Your task to perform on an android device: change the clock display to digital Image 0: 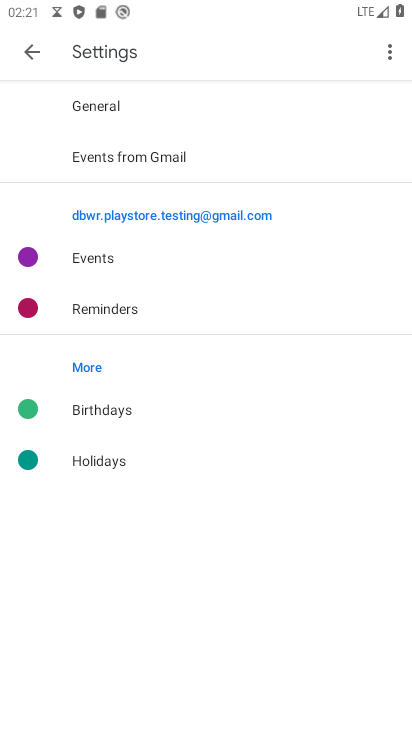
Step 0: press home button
Your task to perform on an android device: change the clock display to digital Image 1: 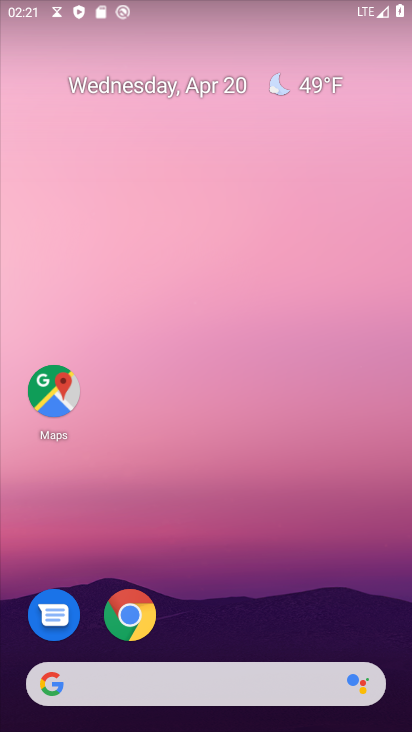
Step 1: click (273, 198)
Your task to perform on an android device: change the clock display to digital Image 2: 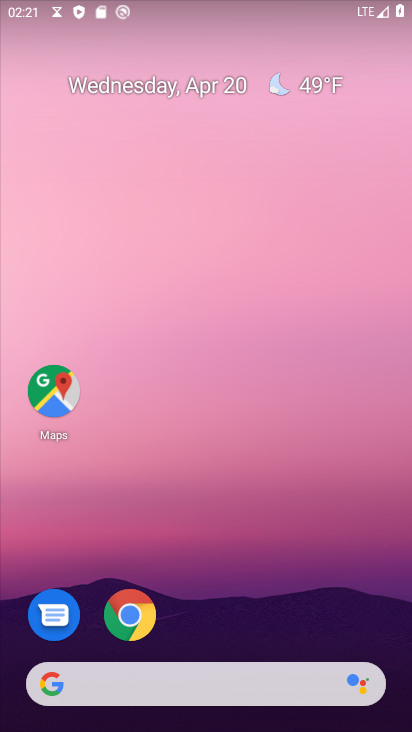
Step 2: drag from (270, 558) to (284, 221)
Your task to perform on an android device: change the clock display to digital Image 3: 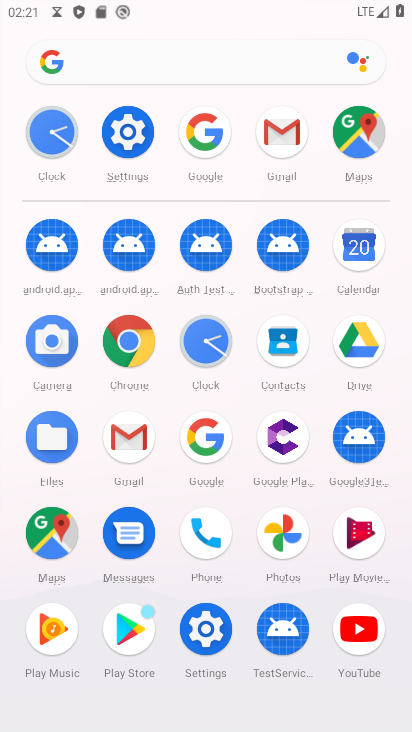
Step 3: click (207, 342)
Your task to perform on an android device: change the clock display to digital Image 4: 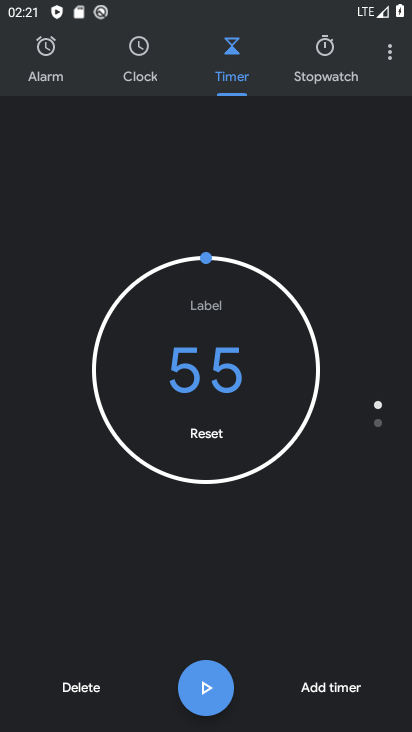
Step 4: click (394, 57)
Your task to perform on an android device: change the clock display to digital Image 5: 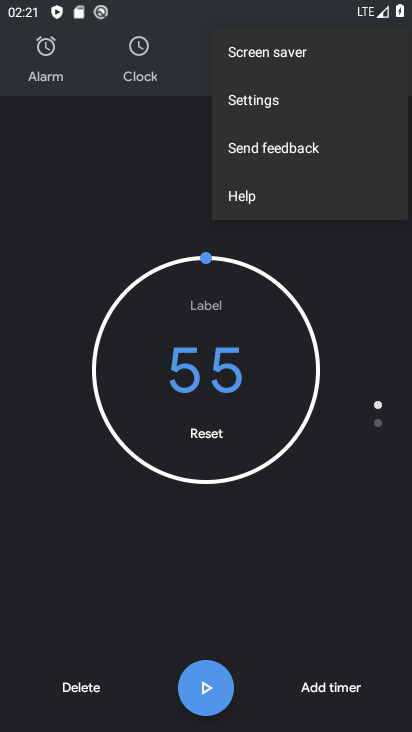
Step 5: click (282, 110)
Your task to perform on an android device: change the clock display to digital Image 6: 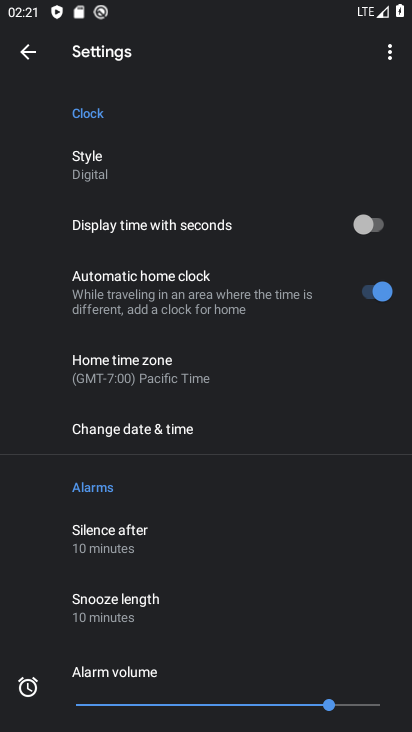
Step 6: task complete